Your task to perform on an android device: toggle notification dots Image 0: 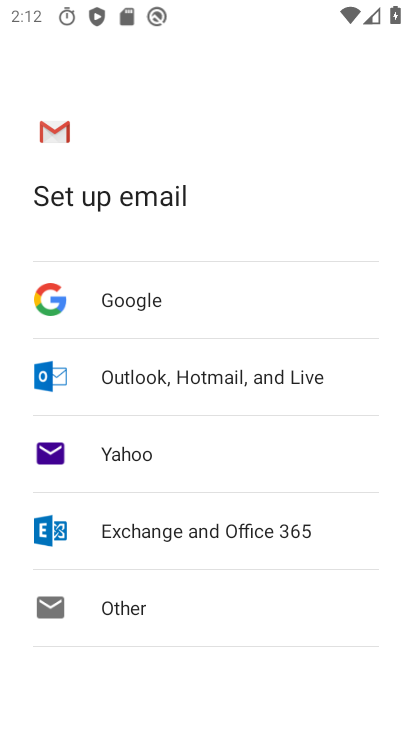
Step 0: press home button
Your task to perform on an android device: toggle notification dots Image 1: 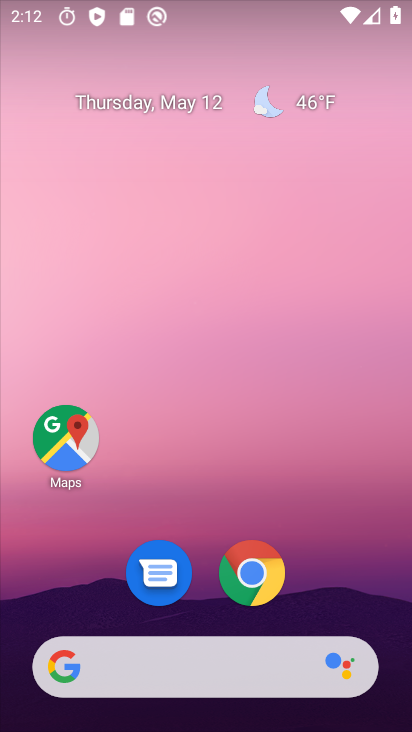
Step 1: drag from (195, 631) to (255, 204)
Your task to perform on an android device: toggle notification dots Image 2: 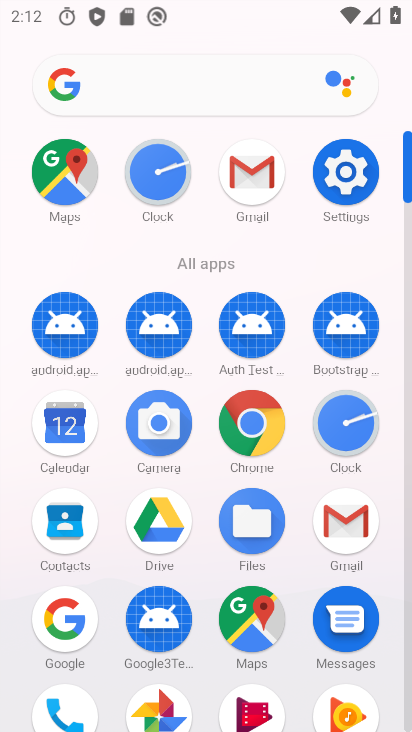
Step 2: click (353, 178)
Your task to perform on an android device: toggle notification dots Image 3: 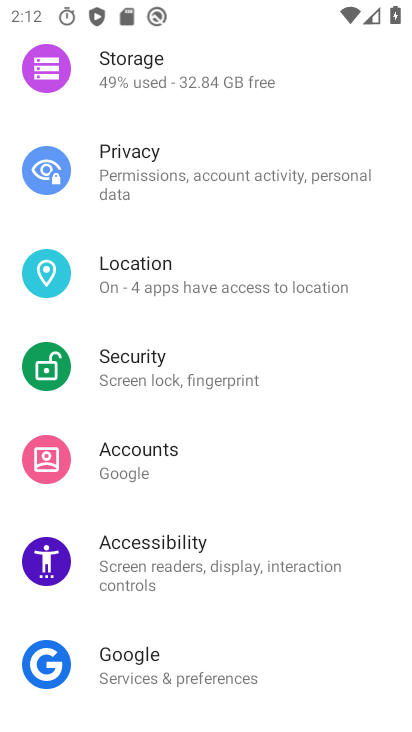
Step 3: drag from (156, 667) to (196, 140)
Your task to perform on an android device: toggle notification dots Image 4: 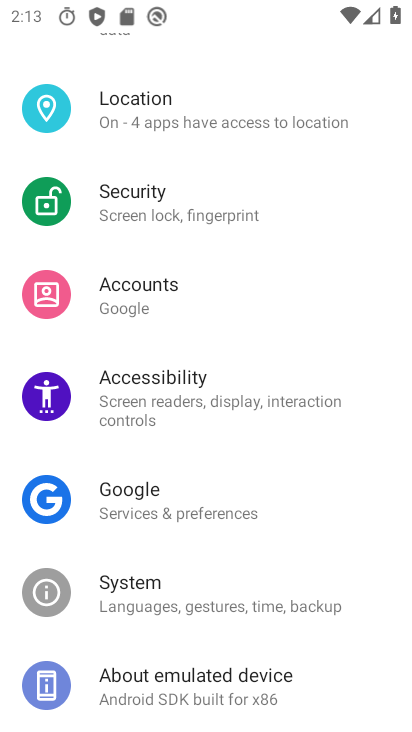
Step 4: drag from (232, 375) to (159, 710)
Your task to perform on an android device: toggle notification dots Image 5: 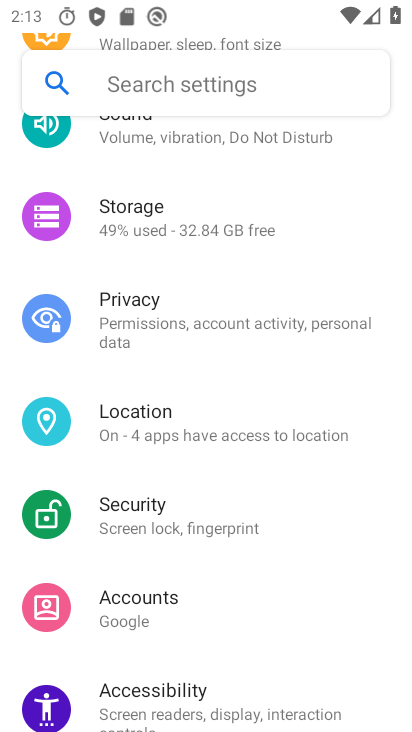
Step 5: drag from (245, 190) to (248, 674)
Your task to perform on an android device: toggle notification dots Image 6: 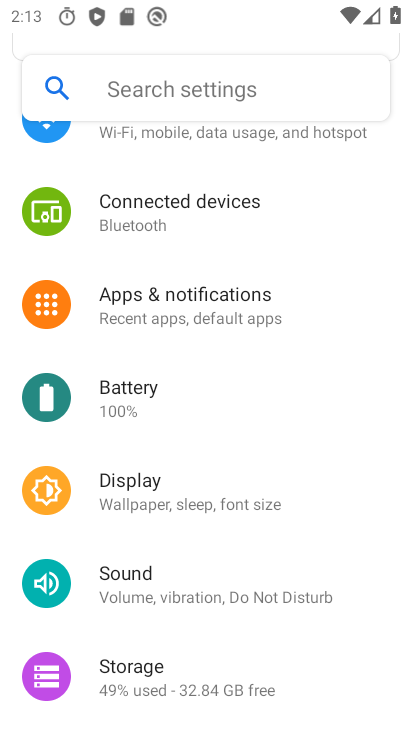
Step 6: click (184, 314)
Your task to perform on an android device: toggle notification dots Image 7: 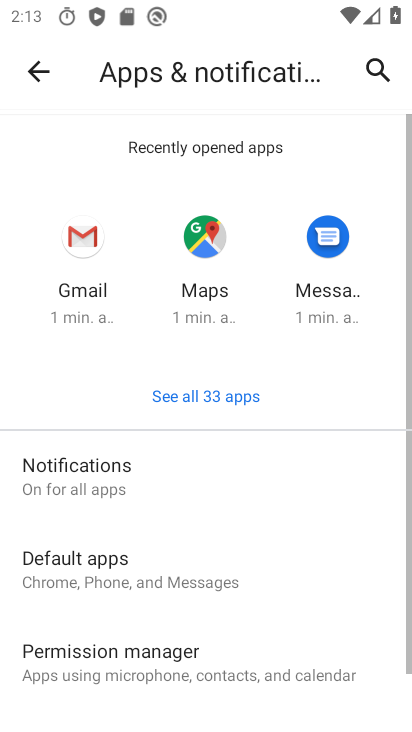
Step 7: drag from (186, 598) to (325, 31)
Your task to perform on an android device: toggle notification dots Image 8: 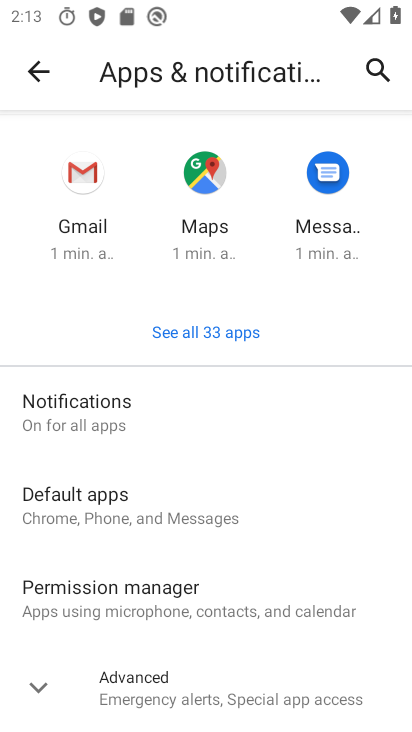
Step 8: click (87, 656)
Your task to perform on an android device: toggle notification dots Image 9: 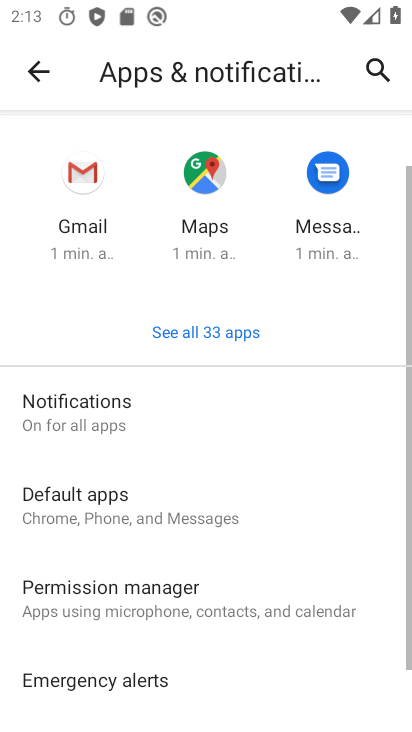
Step 9: drag from (87, 656) to (261, 130)
Your task to perform on an android device: toggle notification dots Image 10: 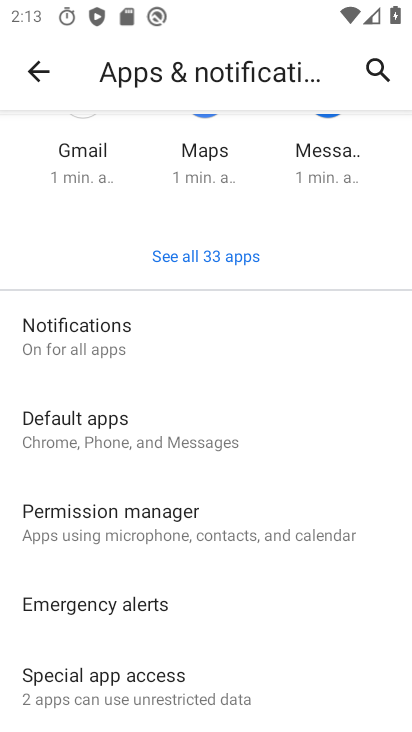
Step 10: drag from (144, 669) to (239, 289)
Your task to perform on an android device: toggle notification dots Image 11: 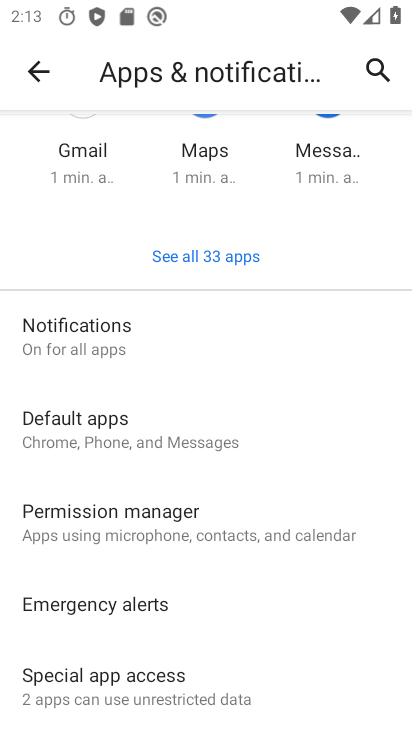
Step 11: click (106, 334)
Your task to perform on an android device: toggle notification dots Image 12: 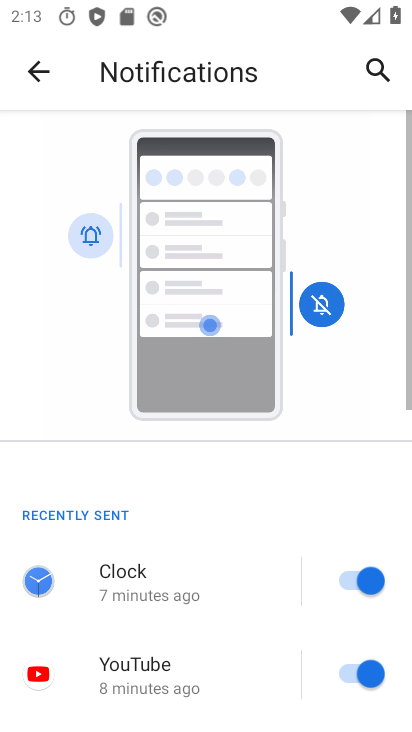
Step 12: drag from (339, 173) to (336, 81)
Your task to perform on an android device: toggle notification dots Image 13: 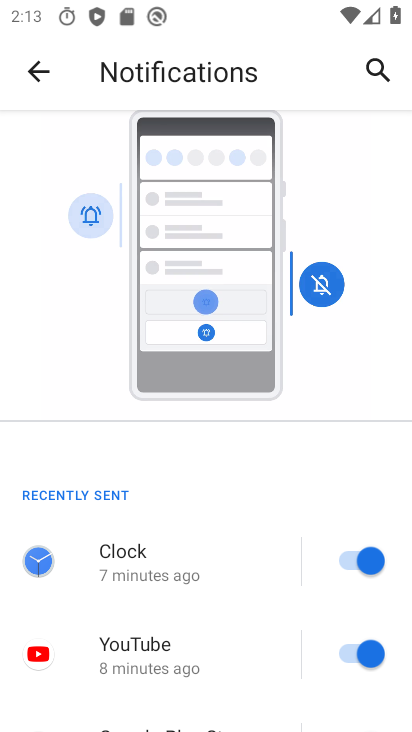
Step 13: drag from (104, 658) to (248, 184)
Your task to perform on an android device: toggle notification dots Image 14: 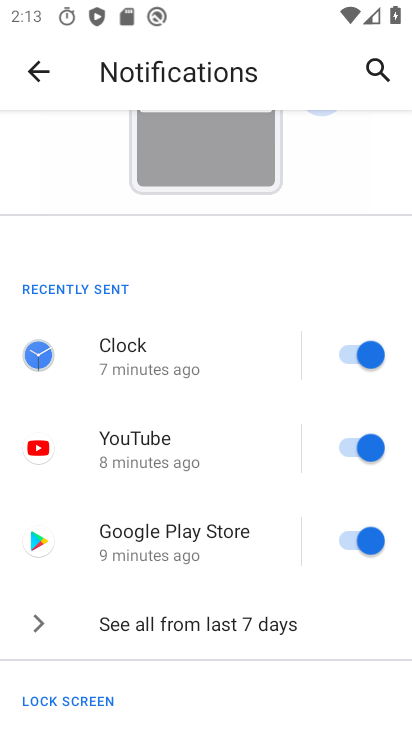
Step 14: drag from (223, 545) to (312, 198)
Your task to perform on an android device: toggle notification dots Image 15: 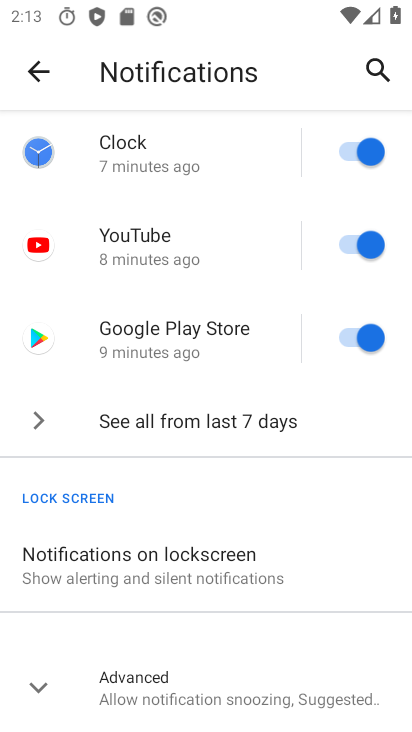
Step 15: drag from (239, 609) to (346, 232)
Your task to perform on an android device: toggle notification dots Image 16: 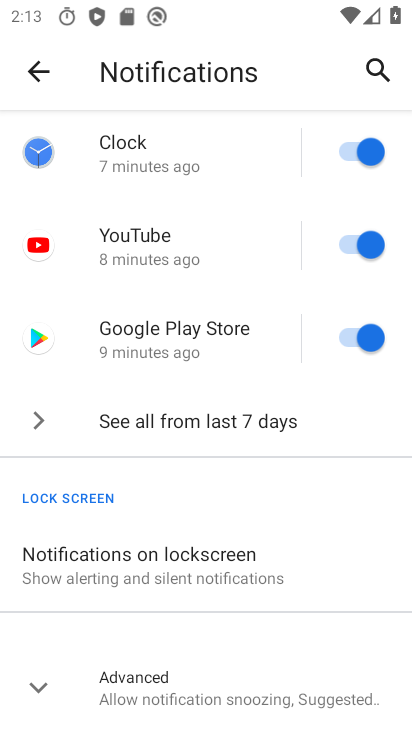
Step 16: click (140, 696)
Your task to perform on an android device: toggle notification dots Image 17: 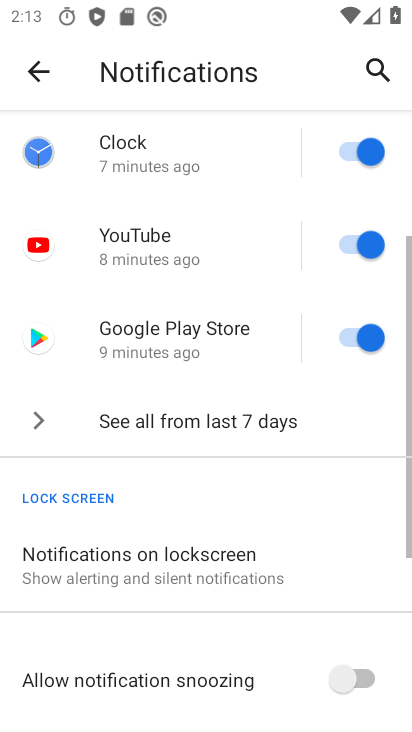
Step 17: drag from (140, 696) to (256, 60)
Your task to perform on an android device: toggle notification dots Image 18: 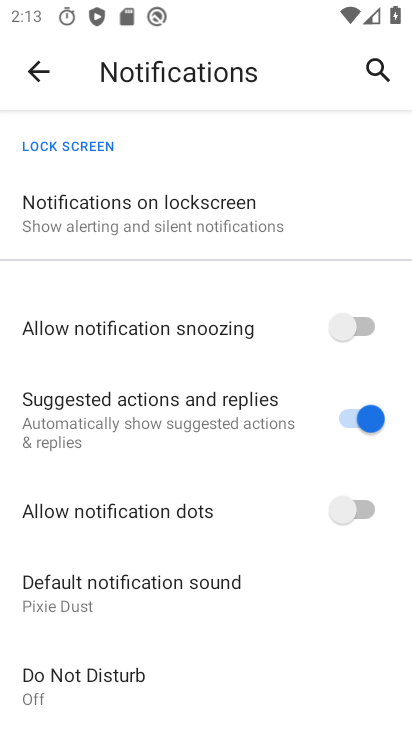
Step 18: click (350, 512)
Your task to perform on an android device: toggle notification dots Image 19: 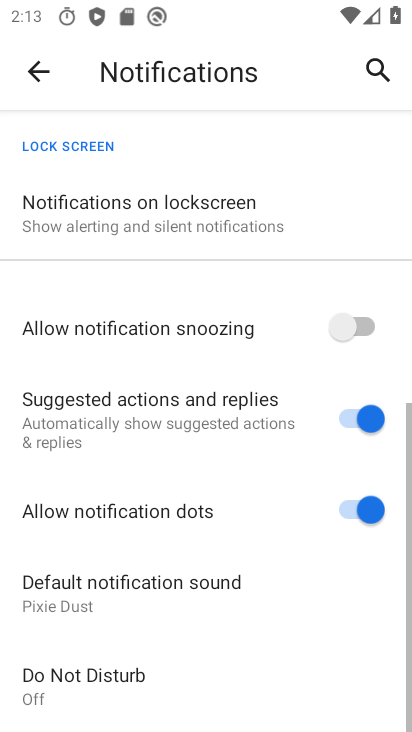
Step 19: click (350, 512)
Your task to perform on an android device: toggle notification dots Image 20: 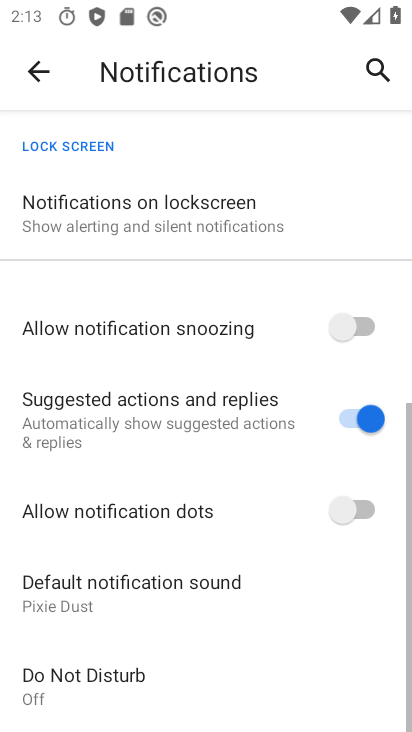
Step 20: click (350, 512)
Your task to perform on an android device: toggle notification dots Image 21: 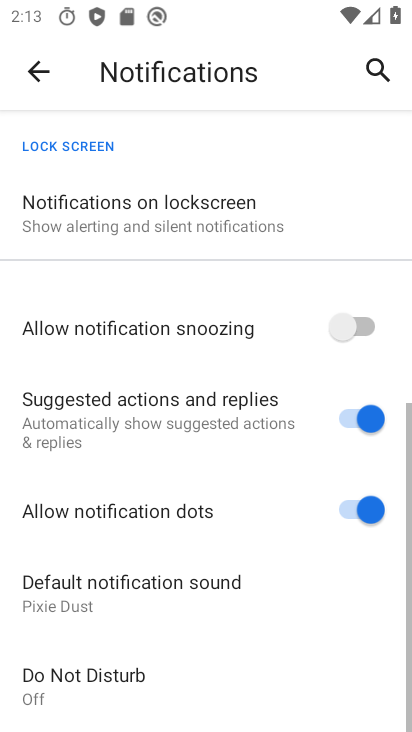
Step 21: task complete